Your task to perform on an android device: Go to privacy settings Image 0: 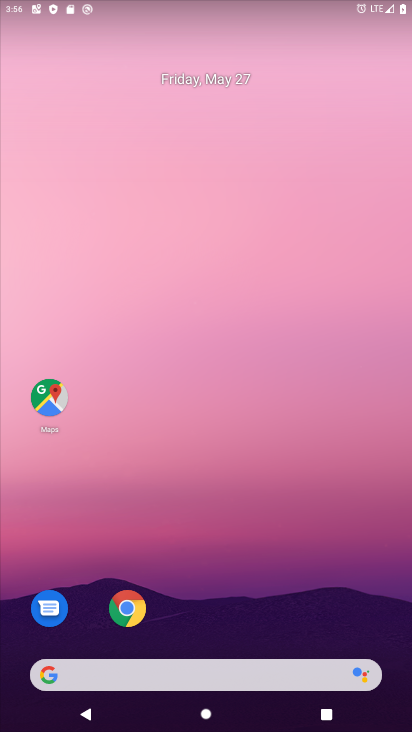
Step 0: drag from (225, 657) to (260, 233)
Your task to perform on an android device: Go to privacy settings Image 1: 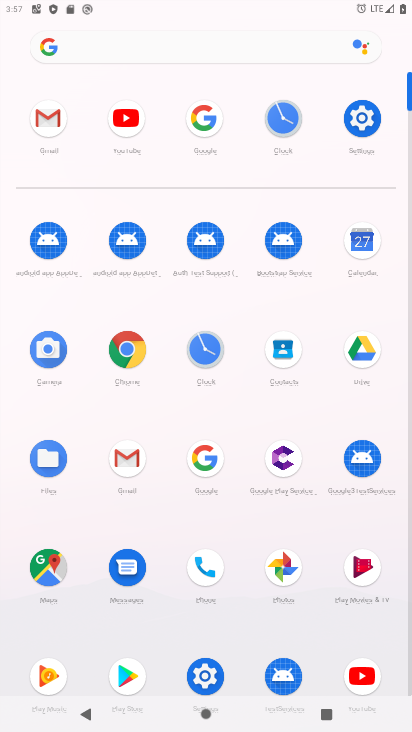
Step 1: click (361, 123)
Your task to perform on an android device: Go to privacy settings Image 2: 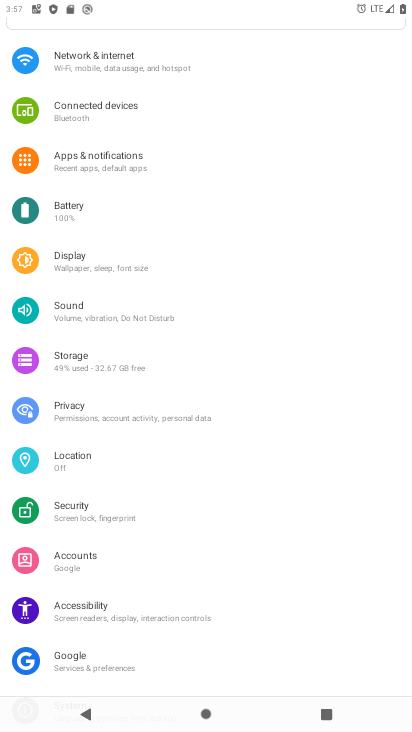
Step 2: click (104, 75)
Your task to perform on an android device: Go to privacy settings Image 3: 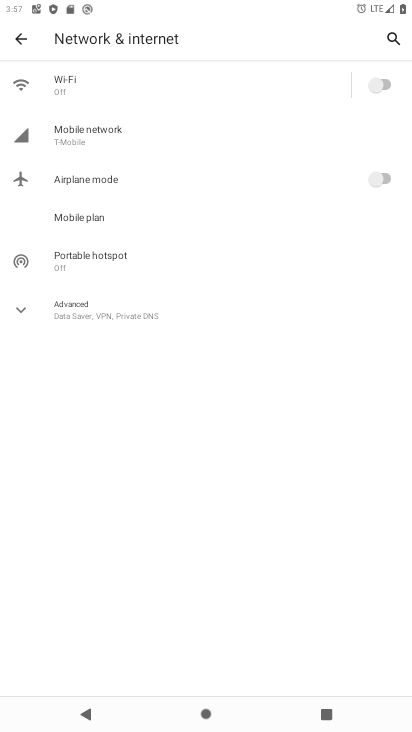
Step 3: click (81, 303)
Your task to perform on an android device: Go to privacy settings Image 4: 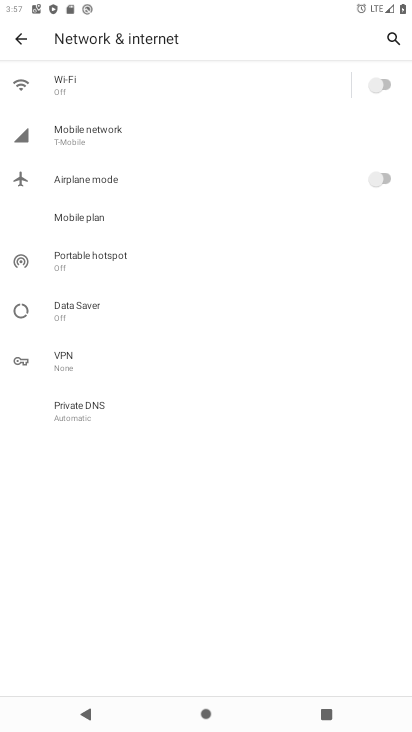
Step 4: task complete